Your task to perform on an android device: Go to settings Image 0: 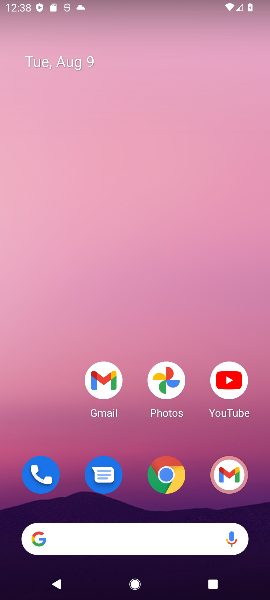
Step 0: drag from (130, 450) to (130, 66)
Your task to perform on an android device: Go to settings Image 1: 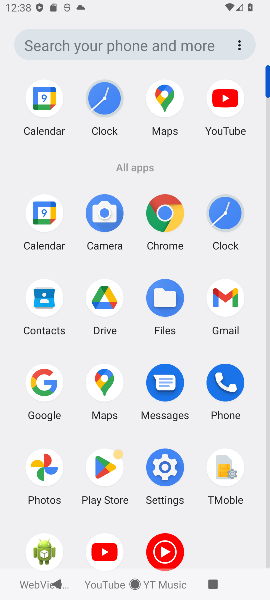
Step 1: click (157, 471)
Your task to perform on an android device: Go to settings Image 2: 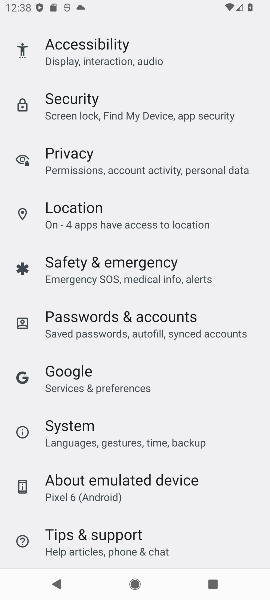
Step 2: task complete